Your task to perform on an android device: turn notification dots off Image 0: 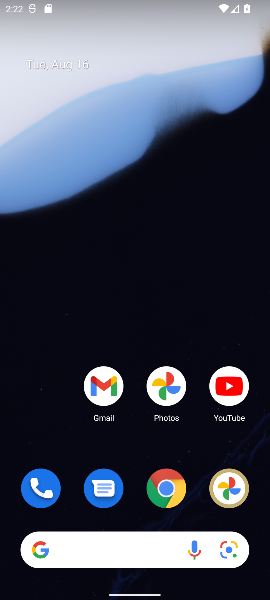
Step 0: drag from (79, 335) to (114, 1)
Your task to perform on an android device: turn notification dots off Image 1: 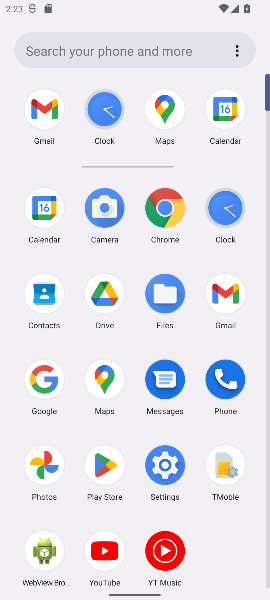
Step 1: task complete